Your task to perform on an android device: Open Google Chrome and click the shortcut for Amazon.com Image 0: 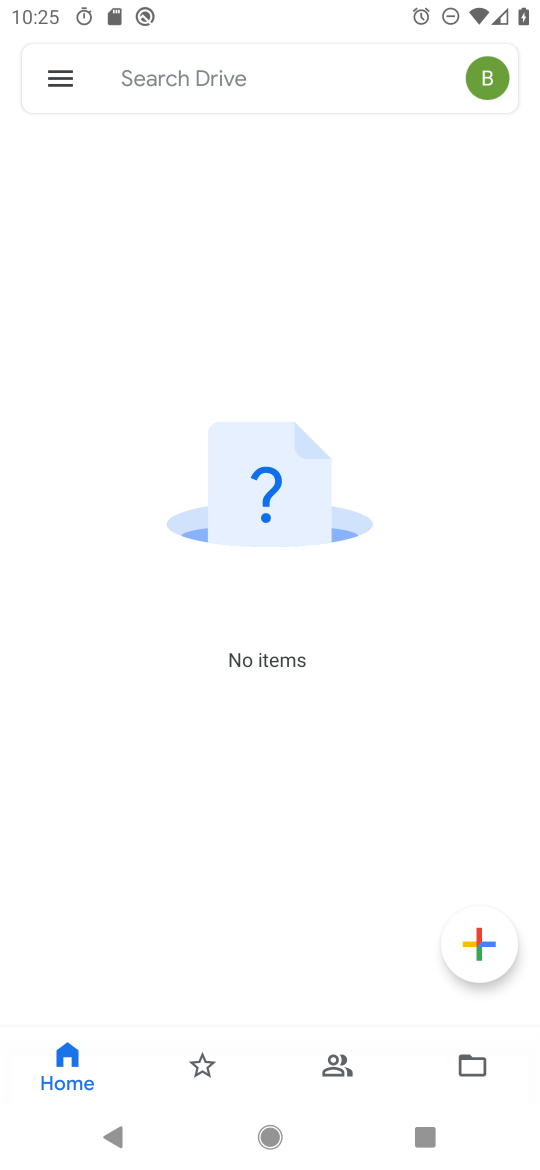
Step 0: drag from (285, 706) to (285, 478)
Your task to perform on an android device: Open Google Chrome and click the shortcut for Amazon.com Image 1: 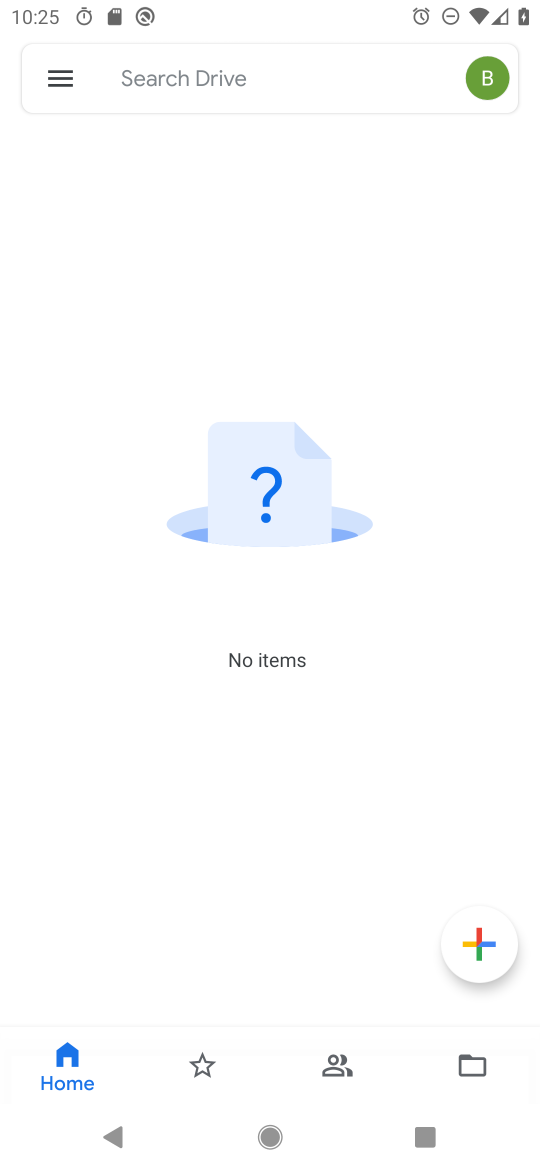
Step 1: press home button
Your task to perform on an android device: Open Google Chrome and click the shortcut for Amazon.com Image 2: 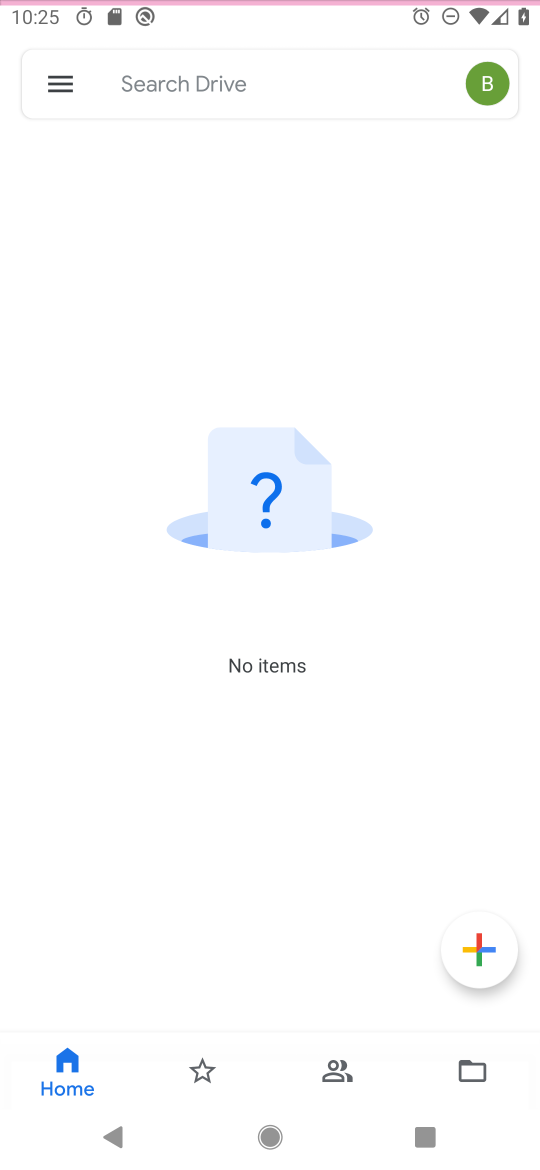
Step 2: drag from (238, 912) to (322, 443)
Your task to perform on an android device: Open Google Chrome and click the shortcut for Amazon.com Image 3: 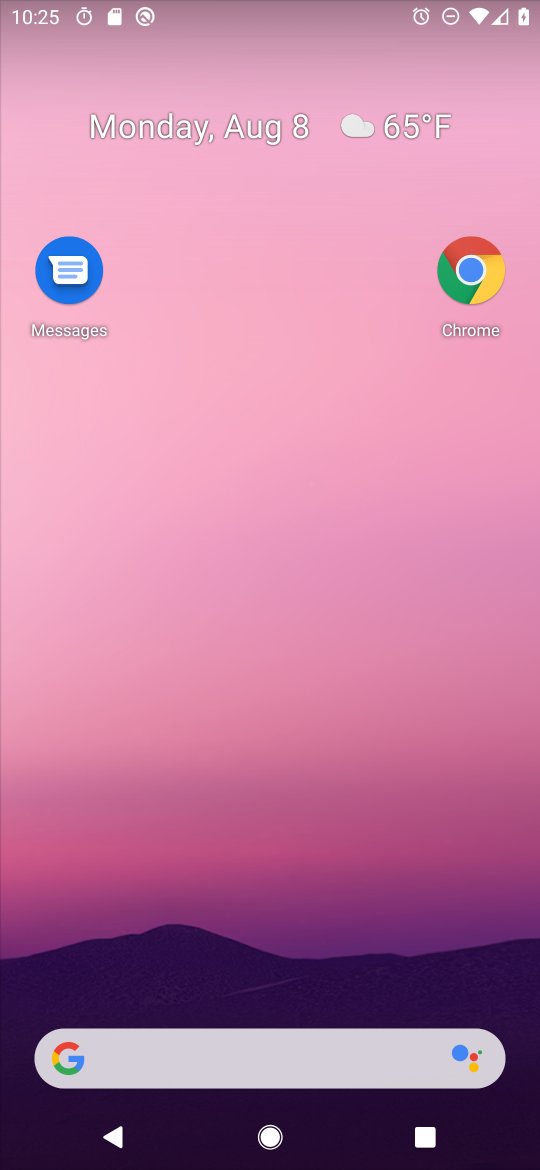
Step 3: drag from (294, 991) to (294, 477)
Your task to perform on an android device: Open Google Chrome and click the shortcut for Amazon.com Image 4: 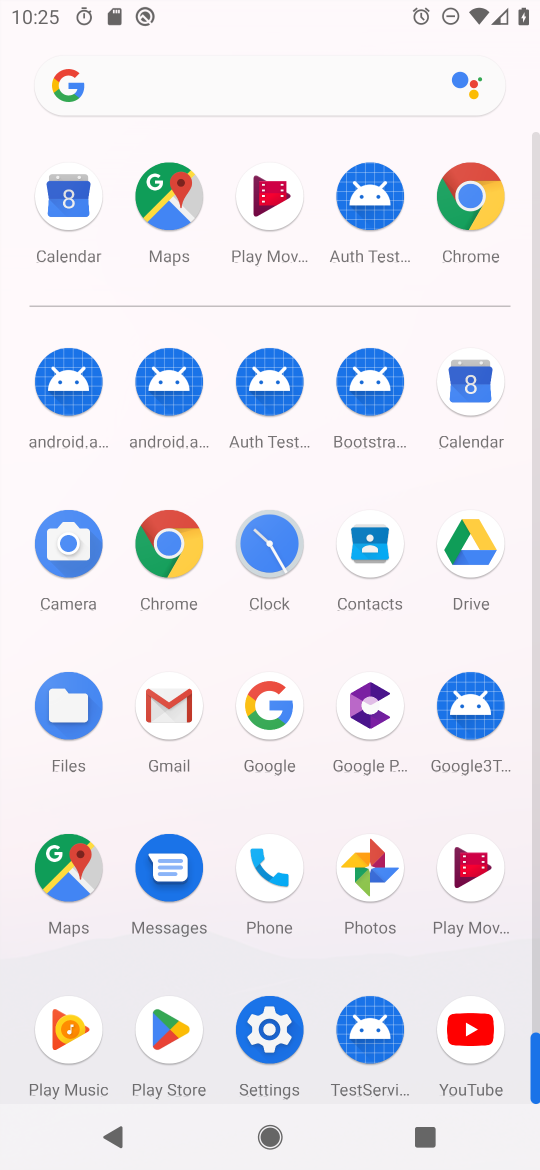
Step 4: click (170, 544)
Your task to perform on an android device: Open Google Chrome and click the shortcut for Amazon.com Image 5: 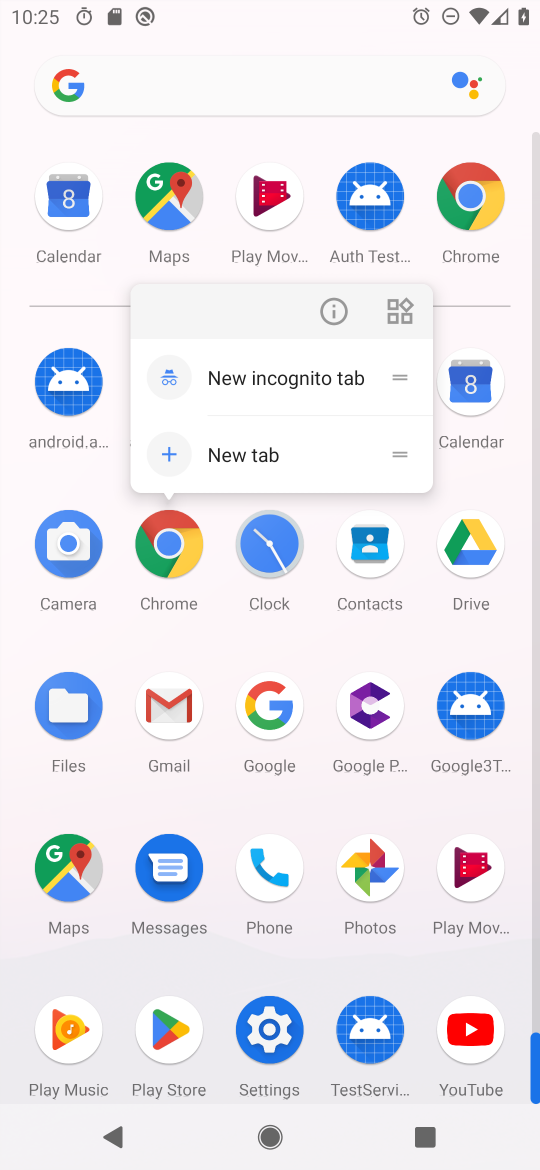
Step 5: click (320, 313)
Your task to perform on an android device: Open Google Chrome and click the shortcut for Amazon.com Image 6: 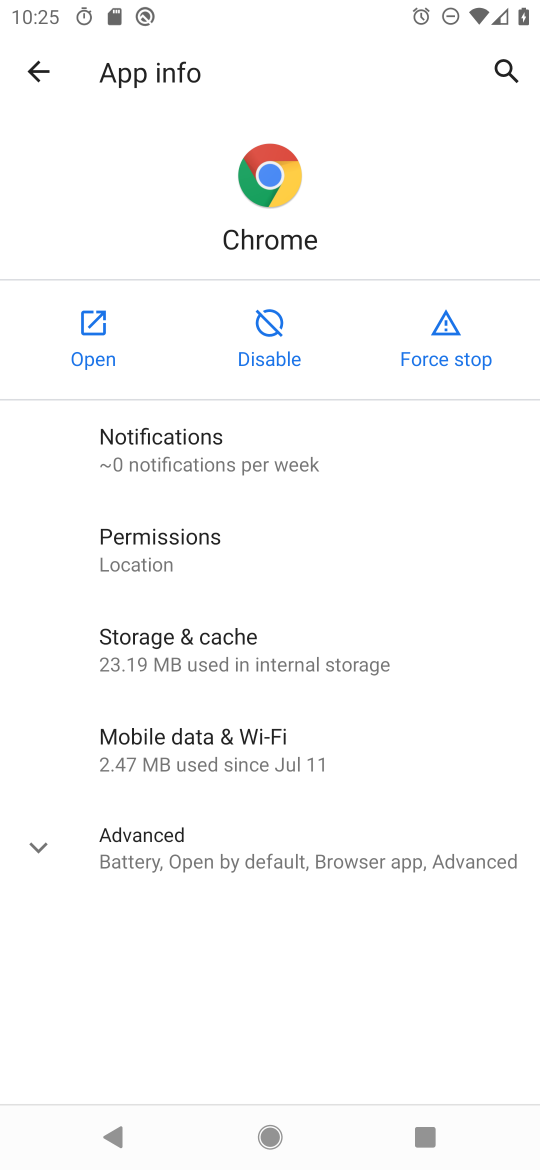
Step 6: click (80, 327)
Your task to perform on an android device: Open Google Chrome and click the shortcut for Amazon.com Image 7: 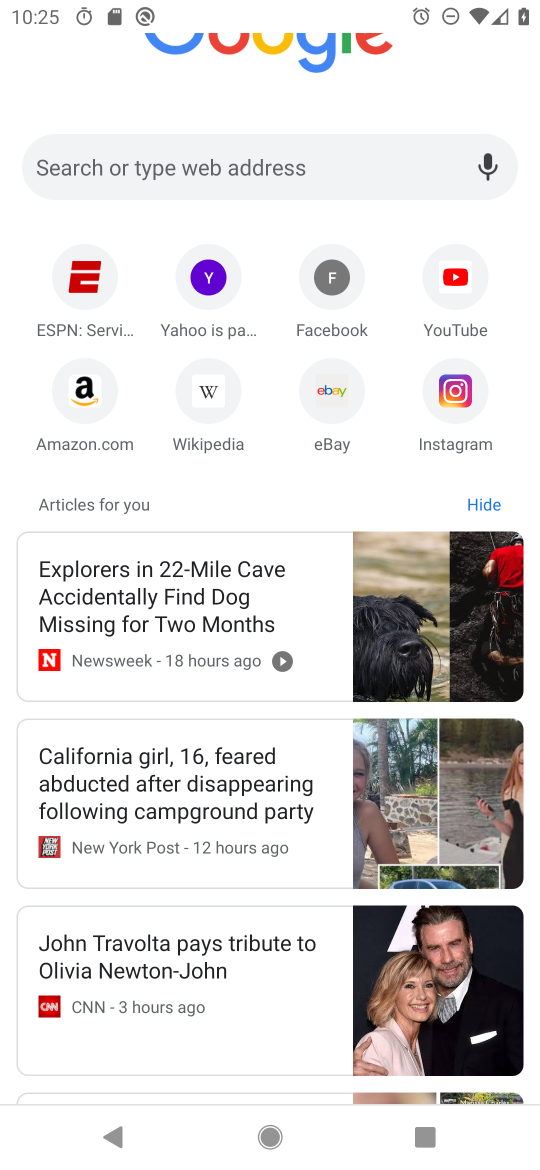
Step 7: click (84, 386)
Your task to perform on an android device: Open Google Chrome and click the shortcut for Amazon.com Image 8: 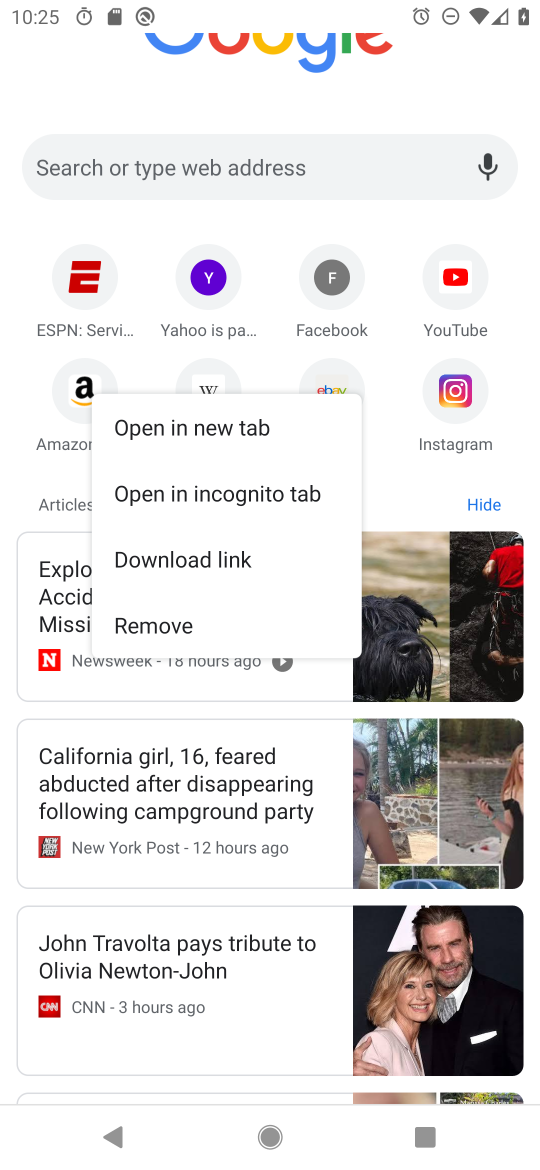
Step 8: click (93, 394)
Your task to perform on an android device: Open Google Chrome and click the shortcut for Amazon.com Image 9: 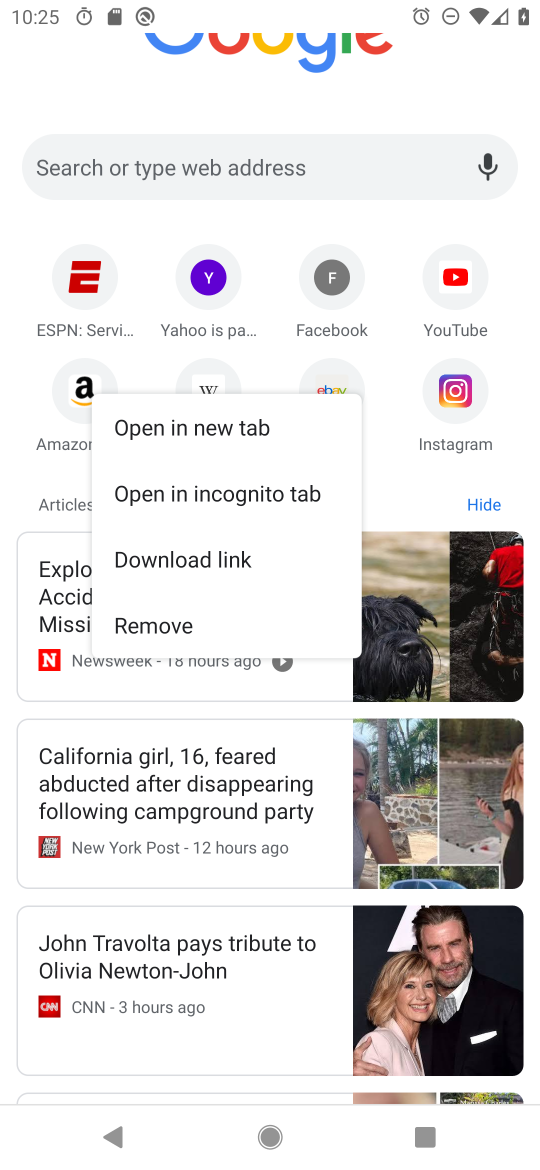
Step 9: click (78, 384)
Your task to perform on an android device: Open Google Chrome and click the shortcut for Amazon.com Image 10: 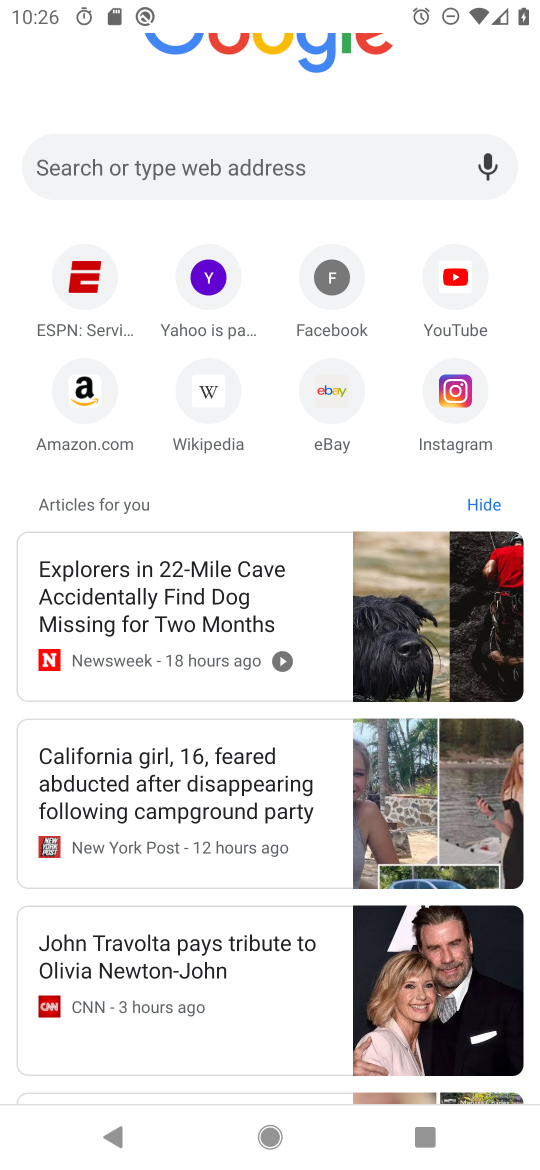
Step 10: click (78, 384)
Your task to perform on an android device: Open Google Chrome and click the shortcut for Amazon.com Image 11: 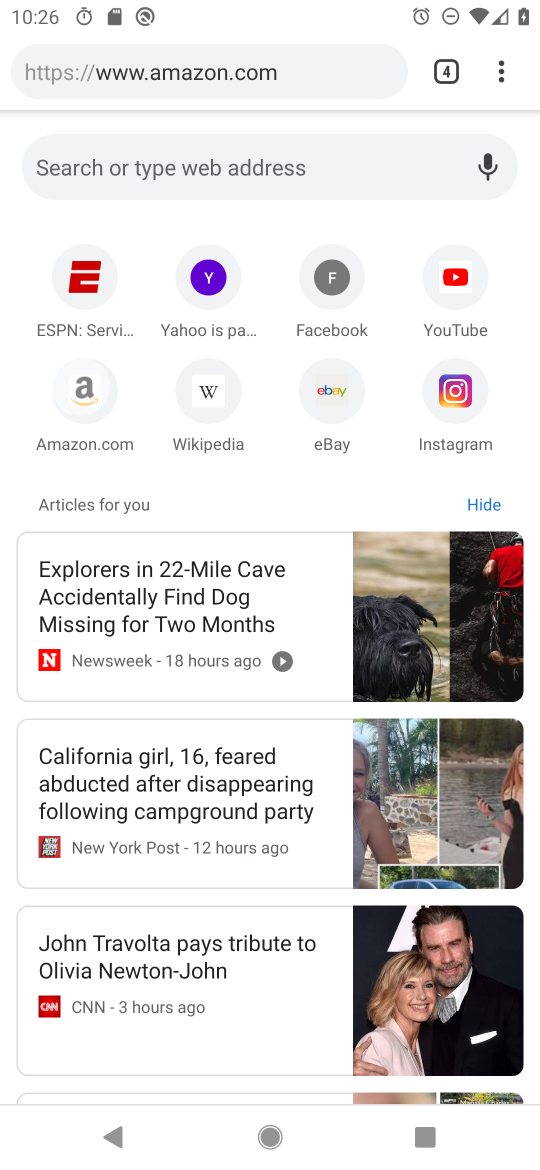
Step 11: click (78, 384)
Your task to perform on an android device: Open Google Chrome and click the shortcut for Amazon.com Image 12: 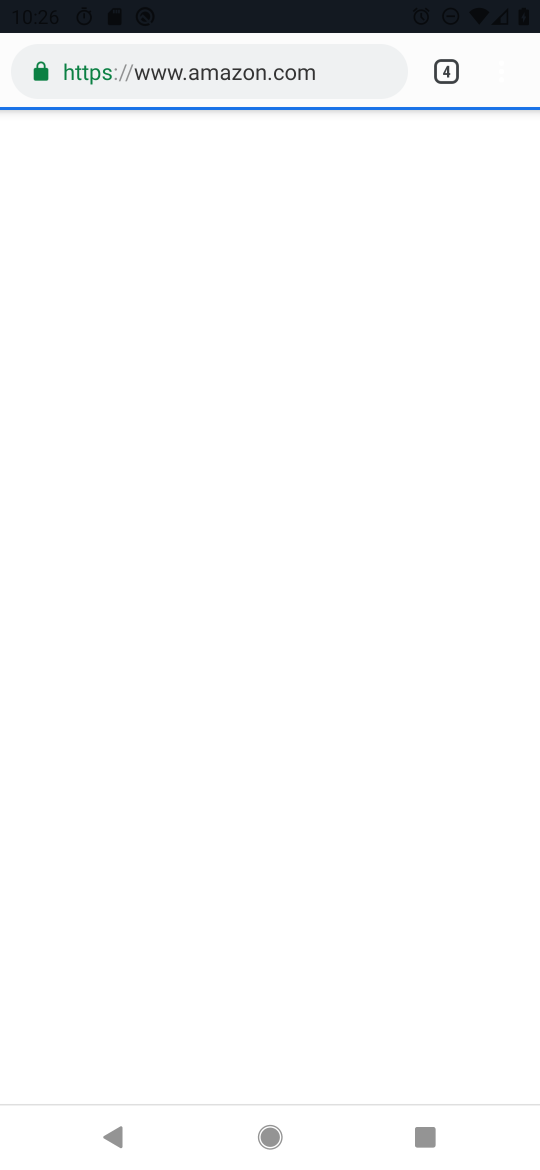
Step 12: task complete